Your task to perform on an android device: Open ESPN.com Image 0: 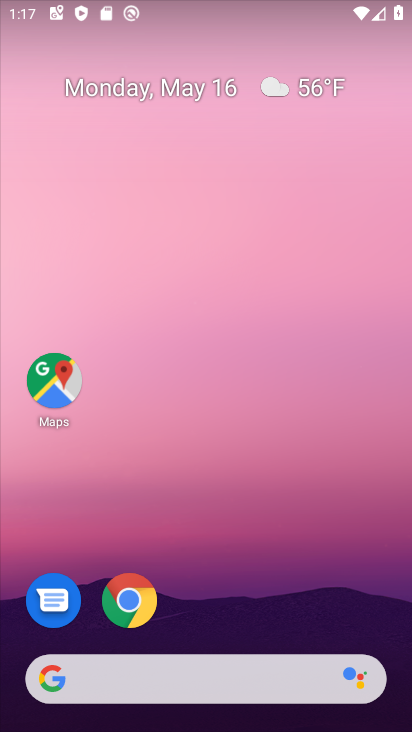
Step 0: click (134, 621)
Your task to perform on an android device: Open ESPN.com Image 1: 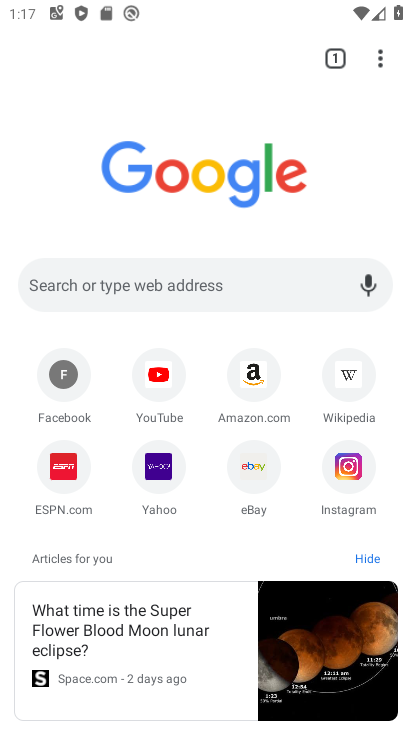
Step 1: click (76, 458)
Your task to perform on an android device: Open ESPN.com Image 2: 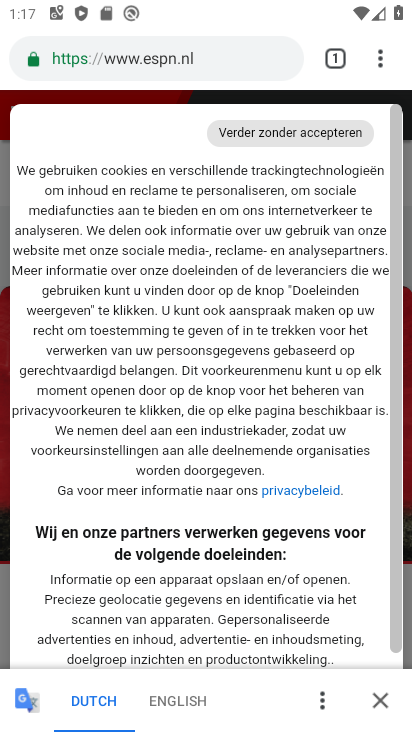
Step 2: task complete